Your task to perform on an android device: Turn off the flashlight Image 0: 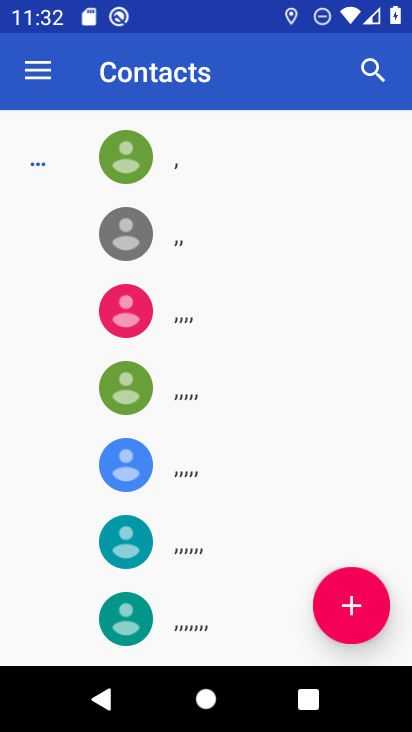
Step 0: press home button
Your task to perform on an android device: Turn off the flashlight Image 1: 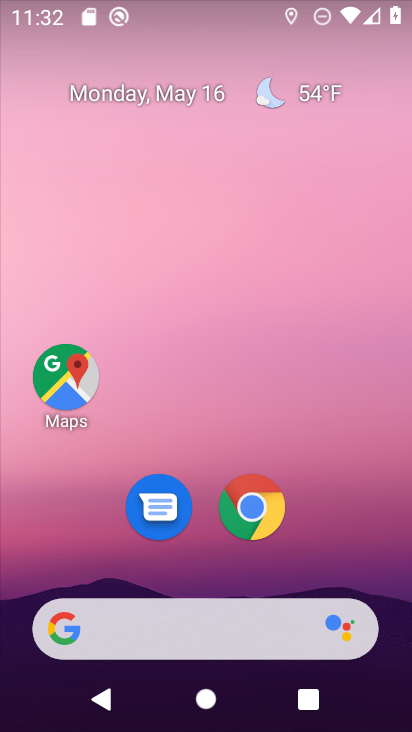
Step 1: drag from (390, 595) to (305, 151)
Your task to perform on an android device: Turn off the flashlight Image 2: 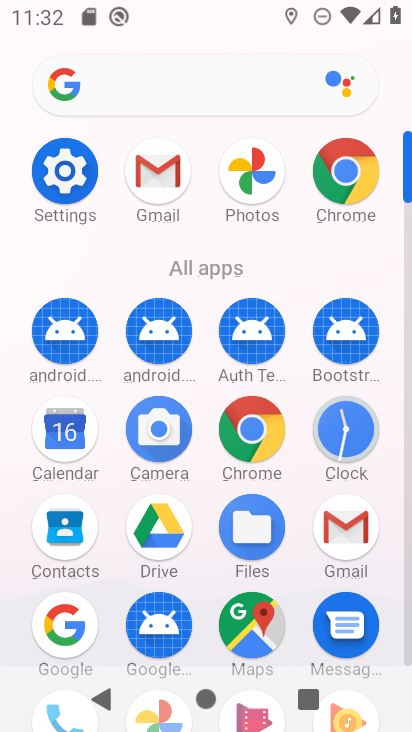
Step 2: drag from (373, 7) to (336, 440)
Your task to perform on an android device: Turn off the flashlight Image 3: 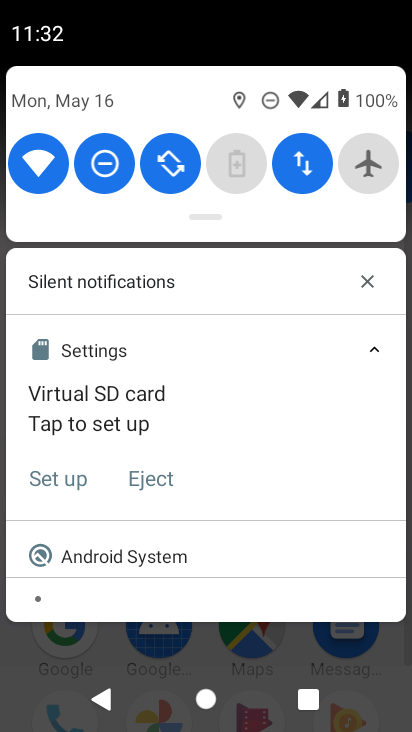
Step 3: drag from (269, 200) to (201, 710)
Your task to perform on an android device: Turn off the flashlight Image 4: 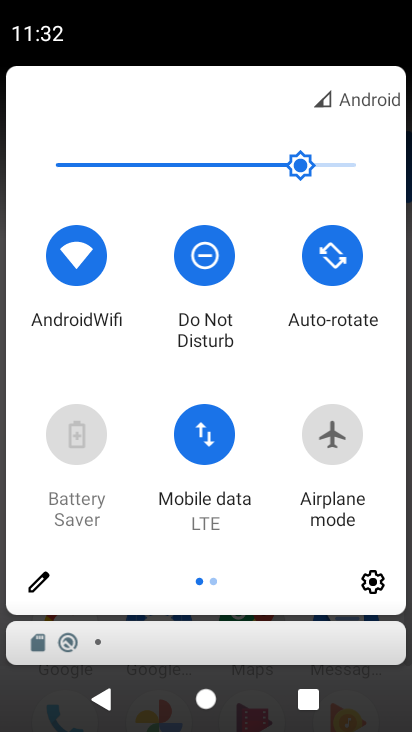
Step 4: click (36, 573)
Your task to perform on an android device: Turn off the flashlight Image 5: 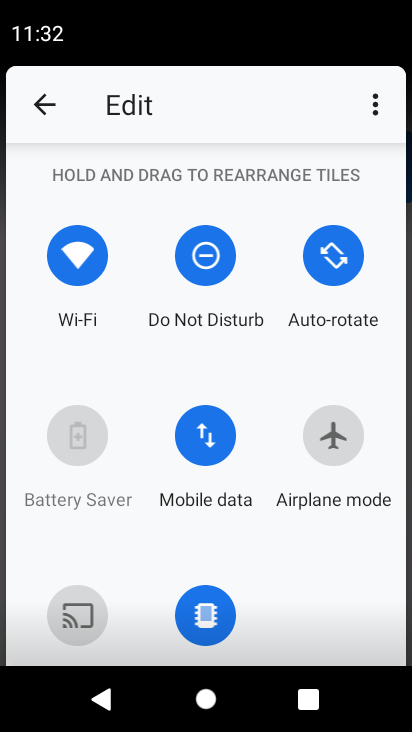
Step 5: task complete